Your task to perform on an android device: Show me popular games on the Play Store Image 0: 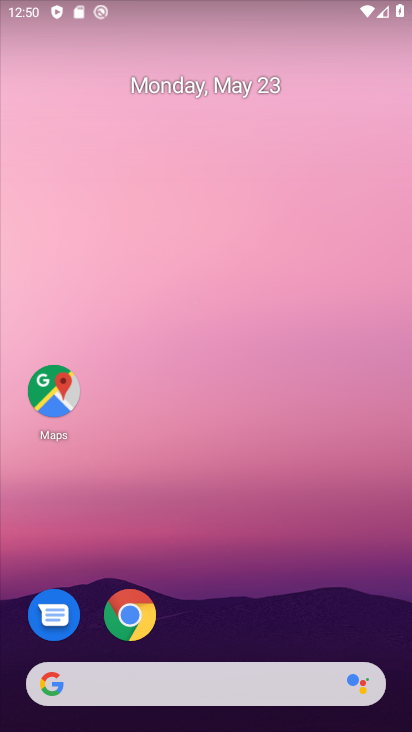
Step 0: drag from (215, 649) to (205, 93)
Your task to perform on an android device: Show me popular games on the Play Store Image 1: 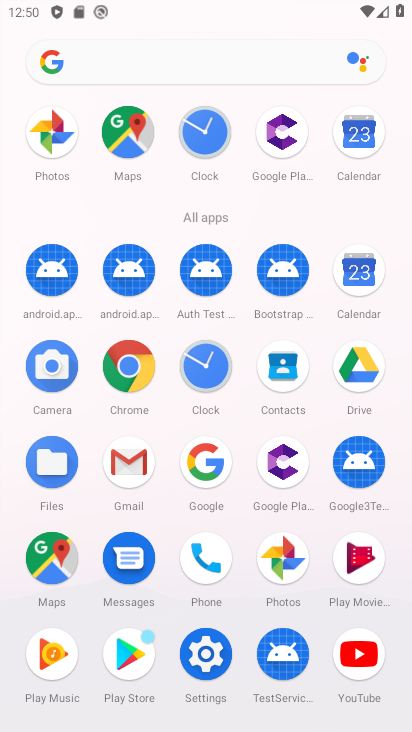
Step 1: click (127, 638)
Your task to perform on an android device: Show me popular games on the Play Store Image 2: 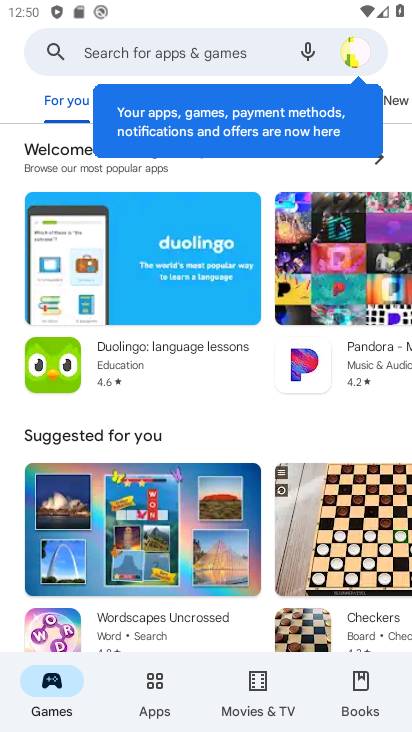
Step 2: drag from (309, 370) to (242, 41)
Your task to perform on an android device: Show me popular games on the Play Store Image 3: 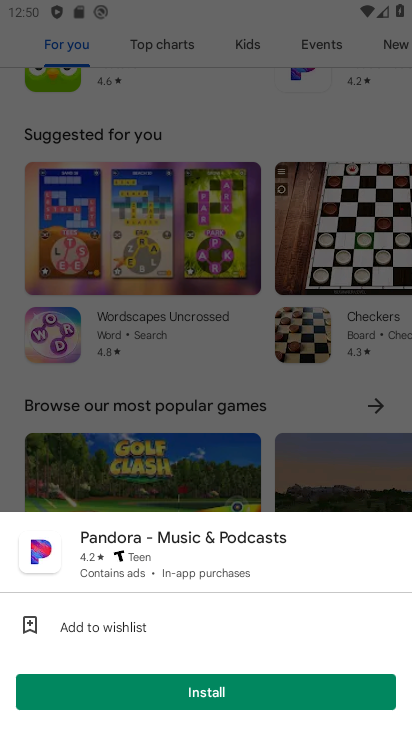
Step 3: click (355, 396)
Your task to perform on an android device: Show me popular games on the Play Store Image 4: 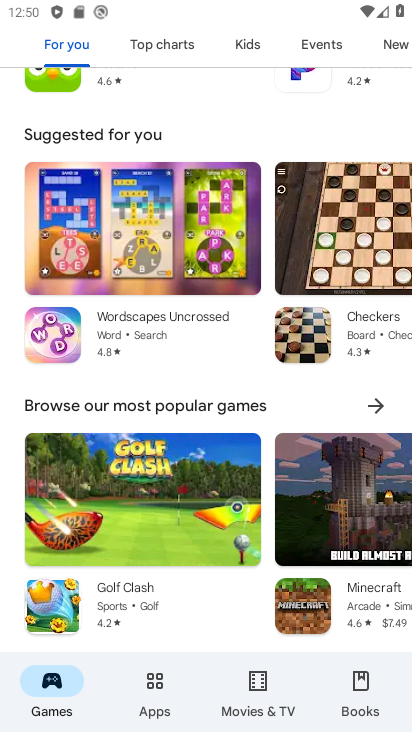
Step 4: click (371, 400)
Your task to perform on an android device: Show me popular games on the Play Store Image 5: 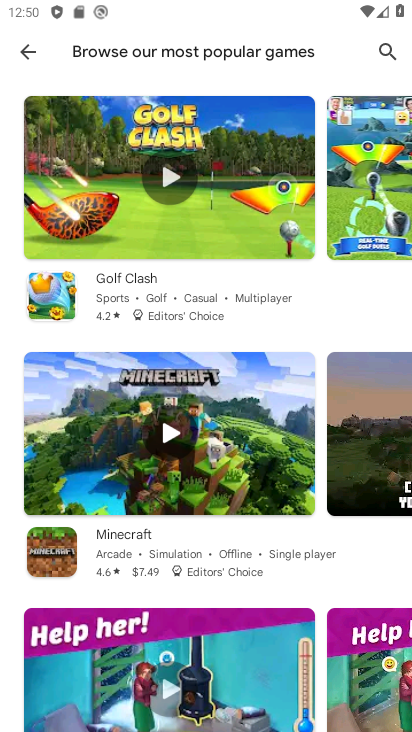
Step 5: task complete